Your task to perform on an android device: move a message to another label in the gmail app Image 0: 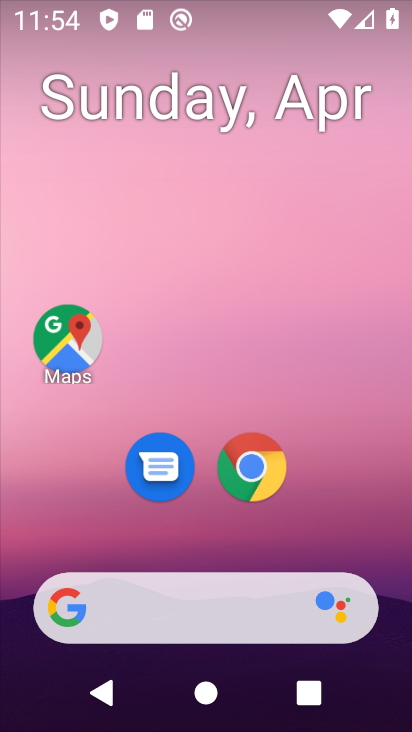
Step 0: drag from (388, 543) to (358, 203)
Your task to perform on an android device: move a message to another label in the gmail app Image 1: 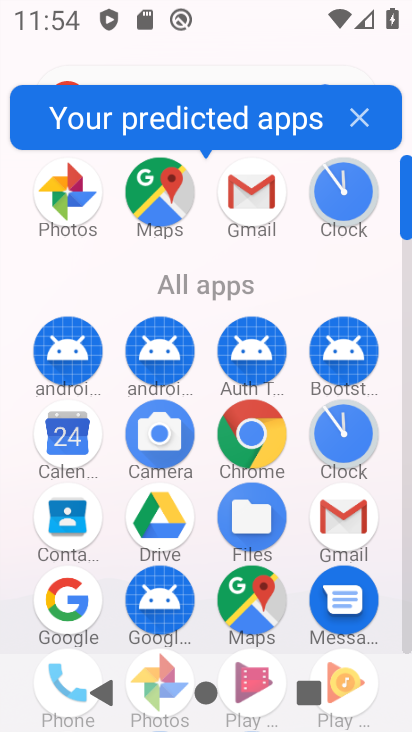
Step 1: click (405, 629)
Your task to perform on an android device: move a message to another label in the gmail app Image 2: 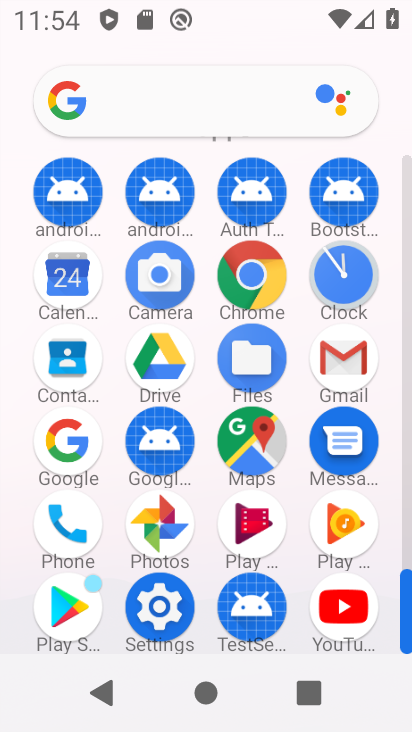
Step 2: click (340, 355)
Your task to perform on an android device: move a message to another label in the gmail app Image 3: 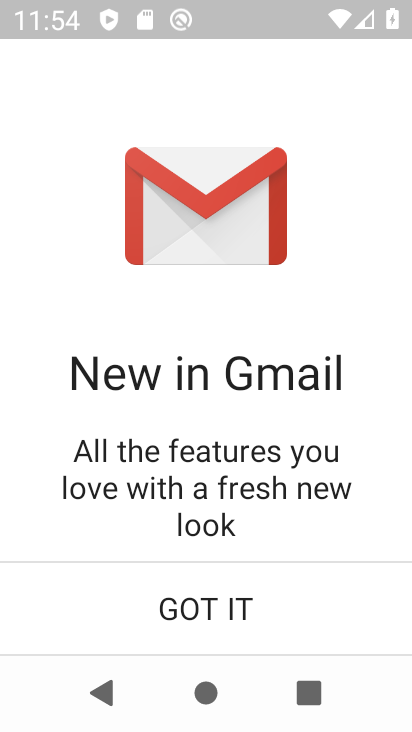
Step 3: click (178, 611)
Your task to perform on an android device: move a message to another label in the gmail app Image 4: 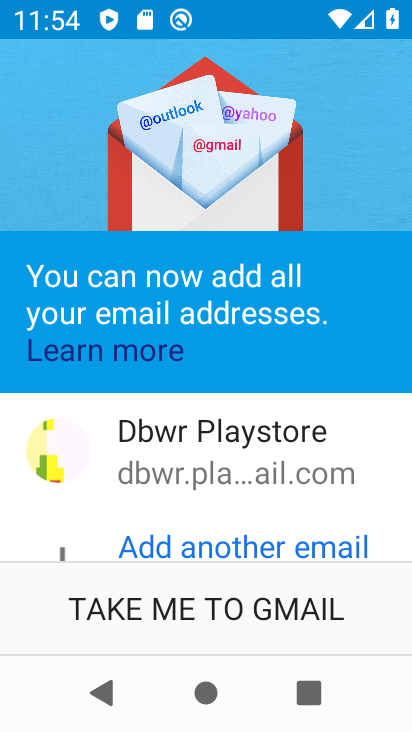
Step 4: click (186, 610)
Your task to perform on an android device: move a message to another label in the gmail app Image 5: 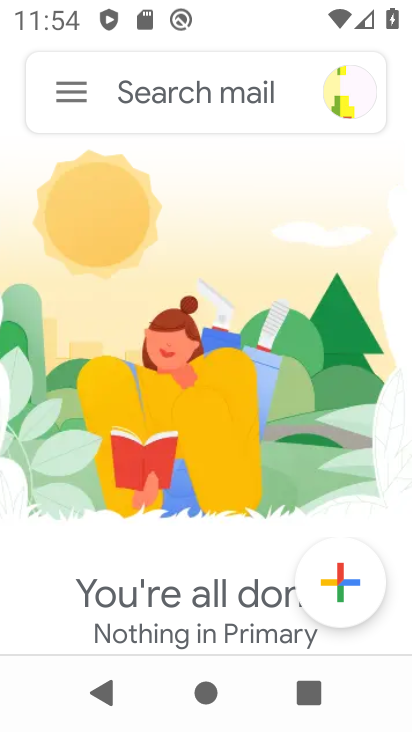
Step 5: click (67, 87)
Your task to perform on an android device: move a message to another label in the gmail app Image 6: 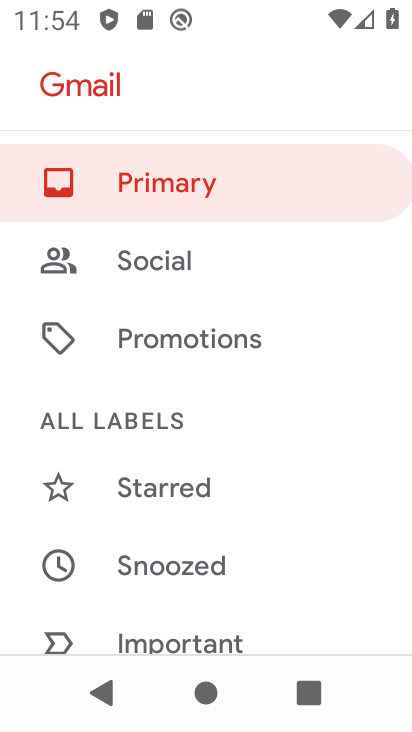
Step 6: drag from (280, 599) to (348, 187)
Your task to perform on an android device: move a message to another label in the gmail app Image 7: 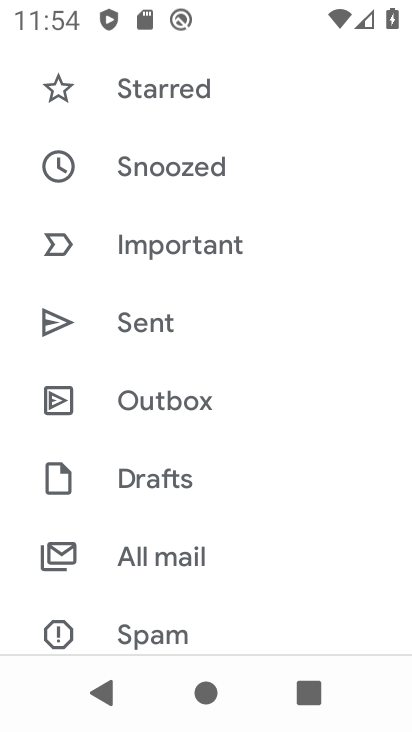
Step 7: click (152, 554)
Your task to perform on an android device: move a message to another label in the gmail app Image 8: 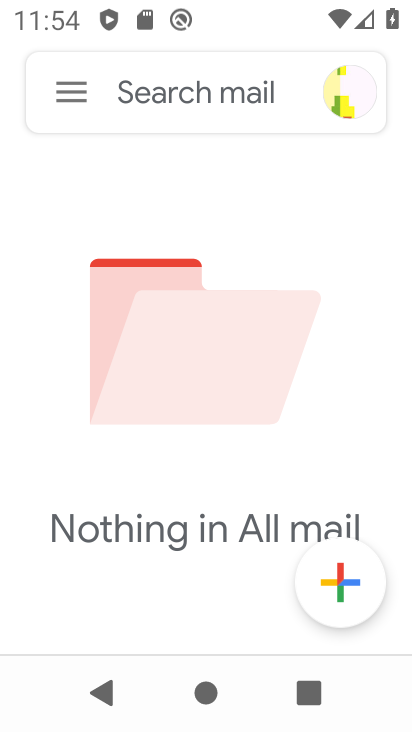
Step 8: task complete